Your task to perform on an android device: visit the assistant section in the google photos Image 0: 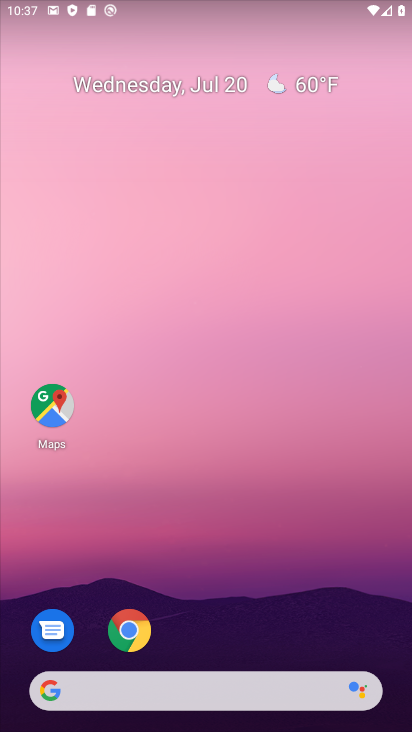
Step 0: drag from (212, 654) to (238, 132)
Your task to perform on an android device: visit the assistant section in the google photos Image 1: 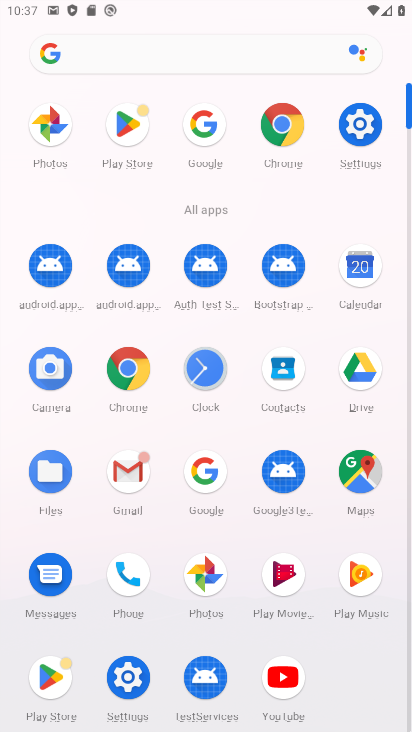
Step 1: click (208, 576)
Your task to perform on an android device: visit the assistant section in the google photos Image 2: 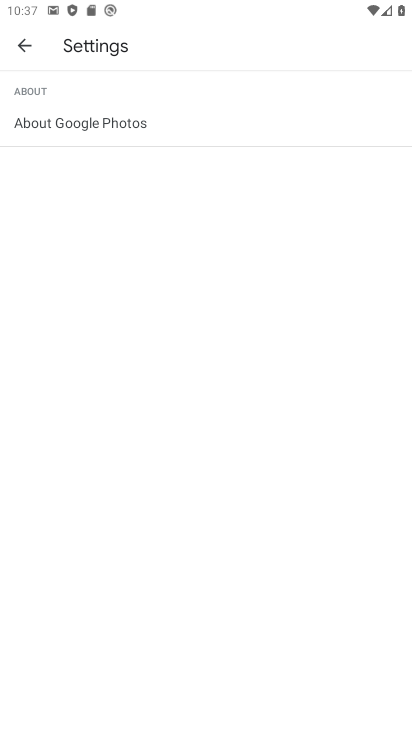
Step 2: press back button
Your task to perform on an android device: visit the assistant section in the google photos Image 3: 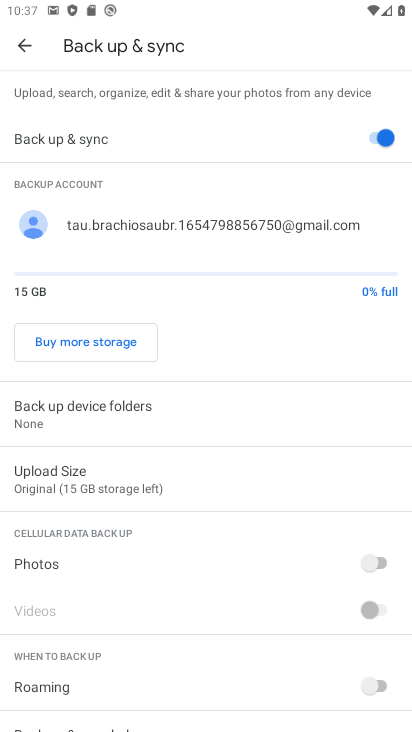
Step 3: press back button
Your task to perform on an android device: visit the assistant section in the google photos Image 4: 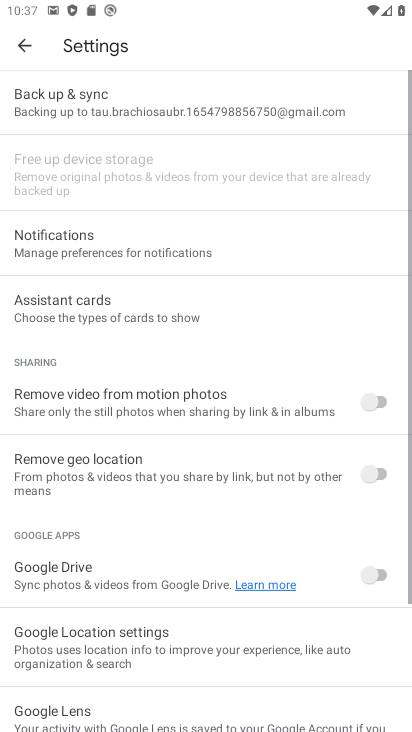
Step 4: press back button
Your task to perform on an android device: visit the assistant section in the google photos Image 5: 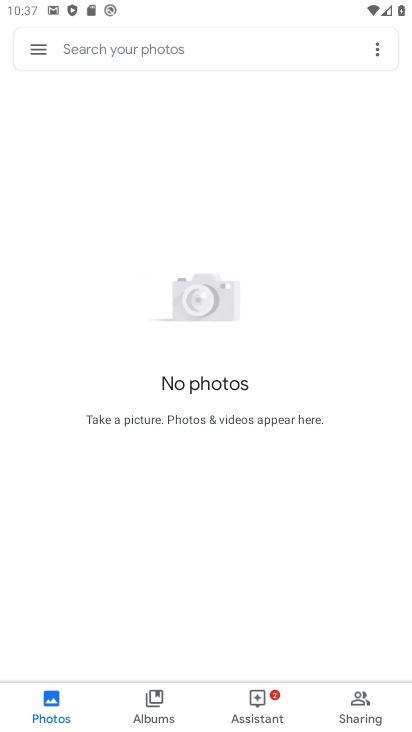
Step 5: click (268, 701)
Your task to perform on an android device: visit the assistant section in the google photos Image 6: 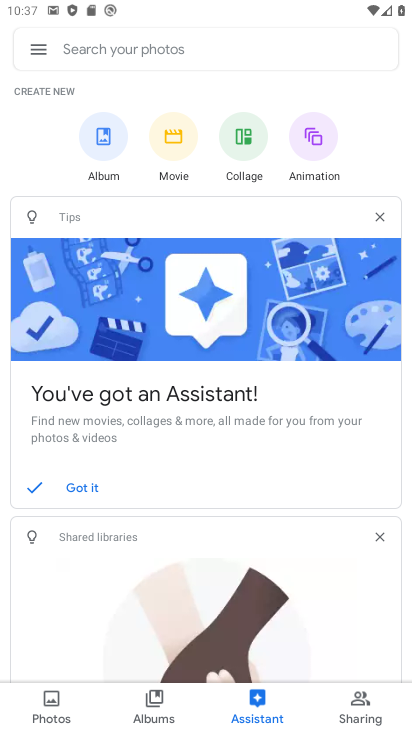
Step 6: task complete